Your task to perform on an android device: check android version Image 0: 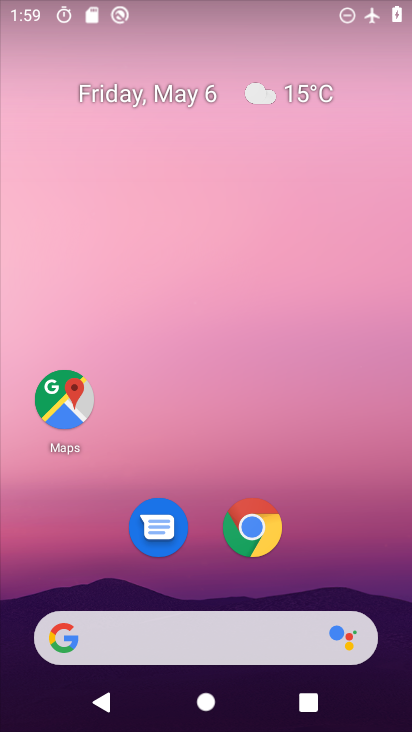
Step 0: drag from (322, 563) to (110, 79)
Your task to perform on an android device: check android version Image 1: 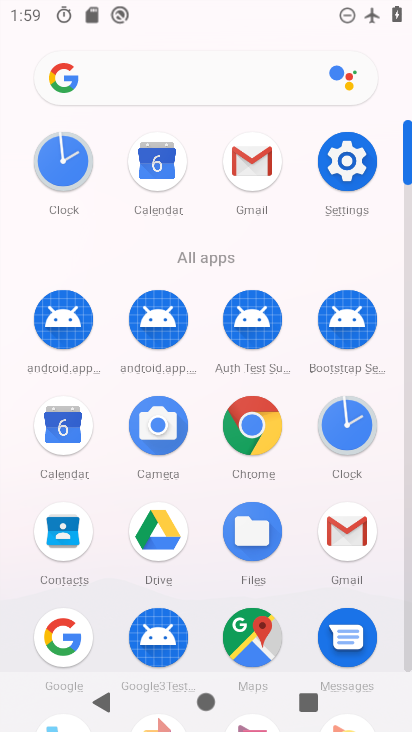
Step 1: click (351, 159)
Your task to perform on an android device: check android version Image 2: 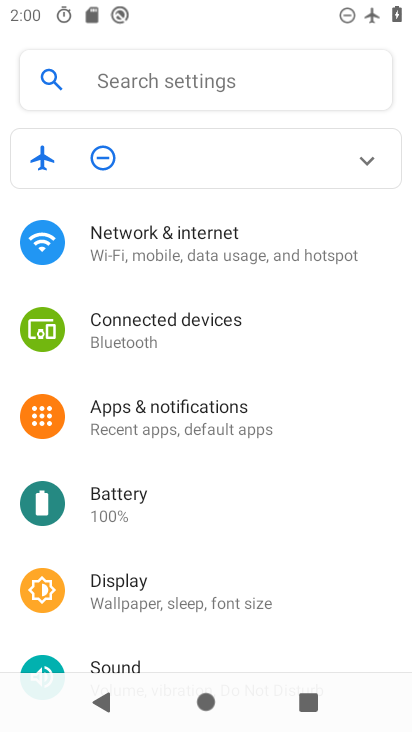
Step 2: drag from (184, 630) to (149, 194)
Your task to perform on an android device: check android version Image 3: 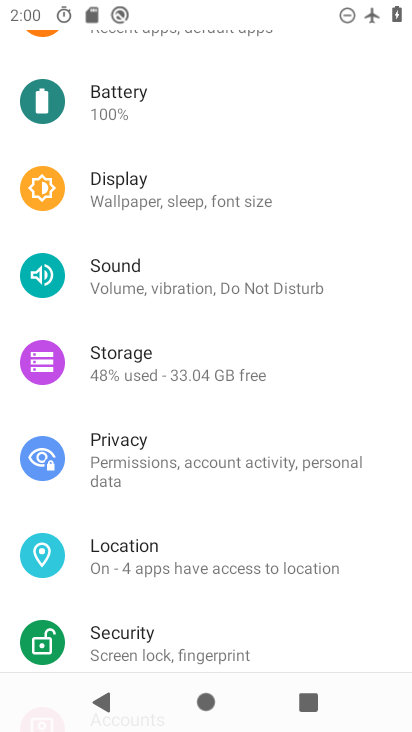
Step 3: drag from (158, 603) to (169, 311)
Your task to perform on an android device: check android version Image 4: 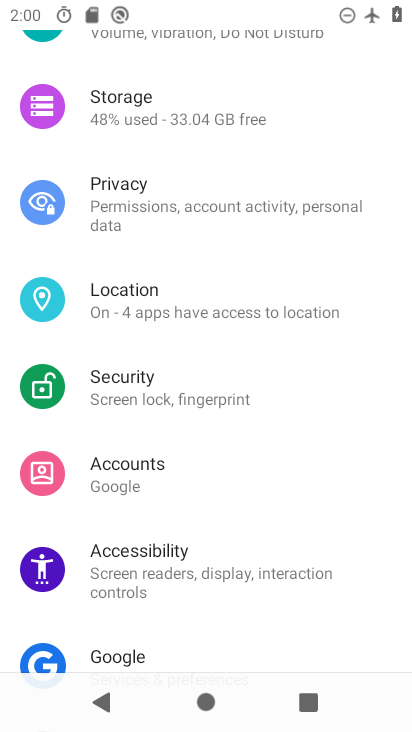
Step 4: drag from (210, 611) to (228, 189)
Your task to perform on an android device: check android version Image 5: 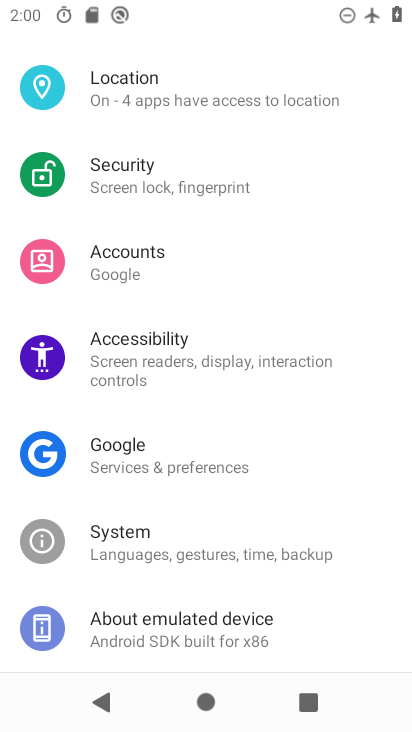
Step 5: click (172, 611)
Your task to perform on an android device: check android version Image 6: 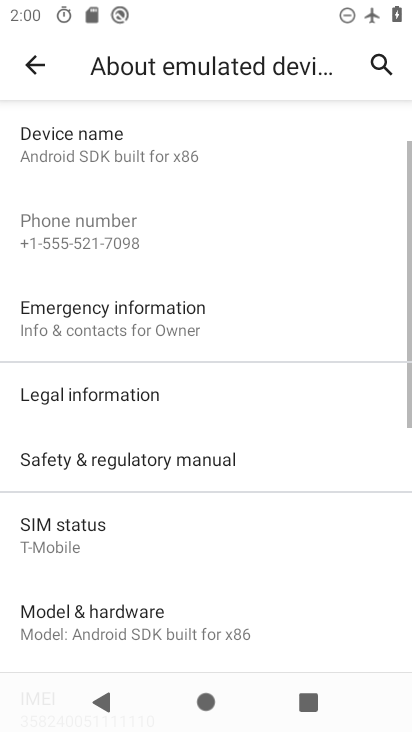
Step 6: task complete